Your task to perform on an android device: Open Android settings Image 0: 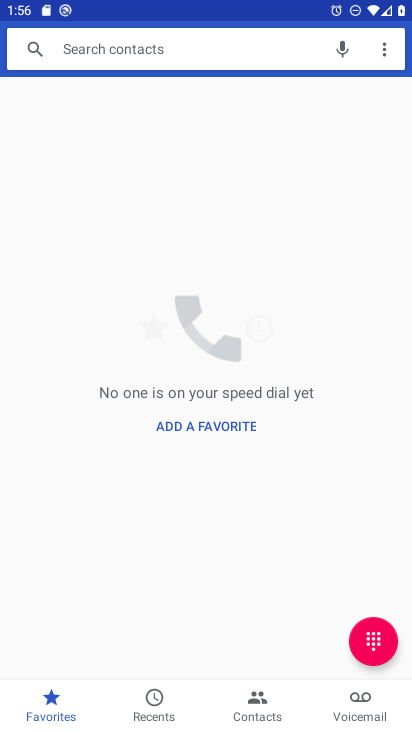
Step 0: press home button
Your task to perform on an android device: Open Android settings Image 1: 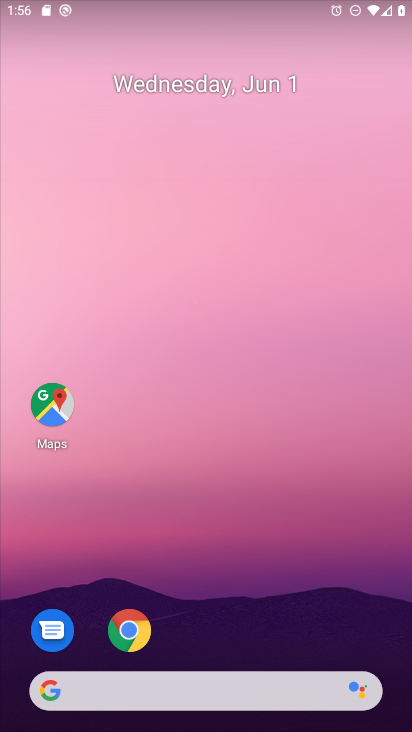
Step 1: drag from (314, 684) to (301, 15)
Your task to perform on an android device: Open Android settings Image 2: 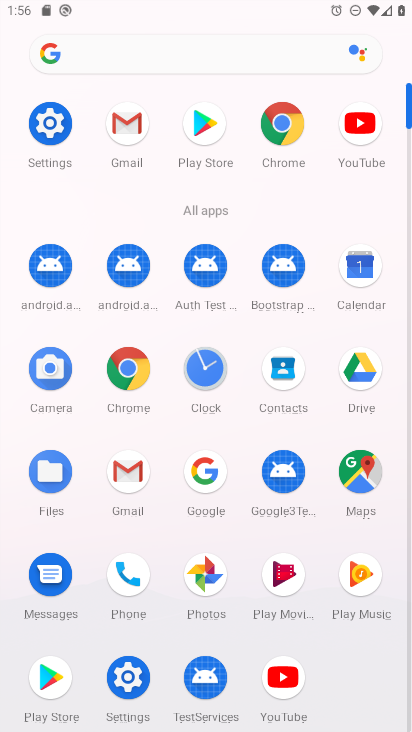
Step 2: click (44, 121)
Your task to perform on an android device: Open Android settings Image 3: 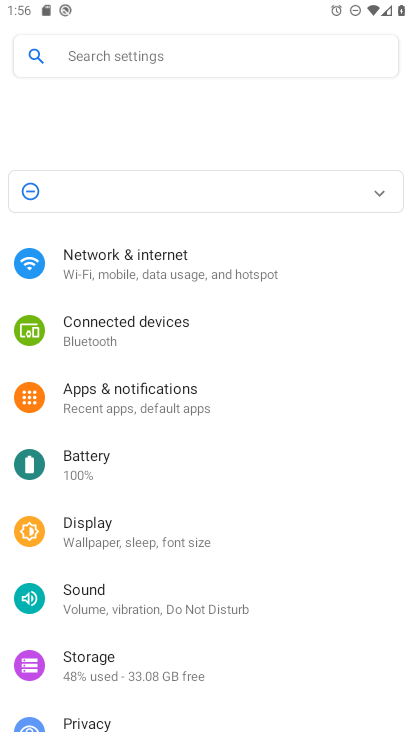
Step 3: drag from (352, 678) to (337, 102)
Your task to perform on an android device: Open Android settings Image 4: 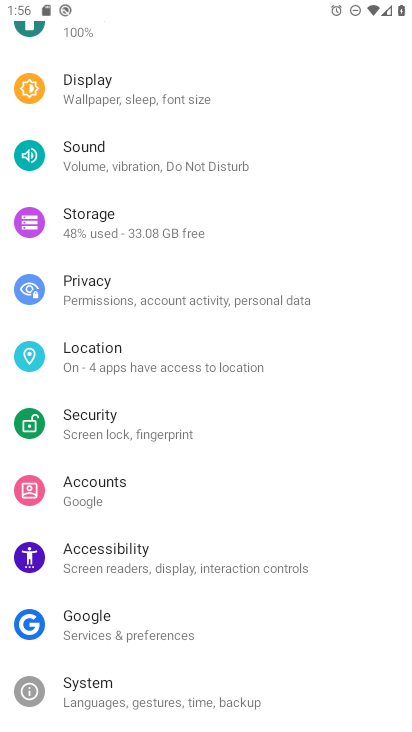
Step 4: drag from (258, 652) to (292, 140)
Your task to perform on an android device: Open Android settings Image 5: 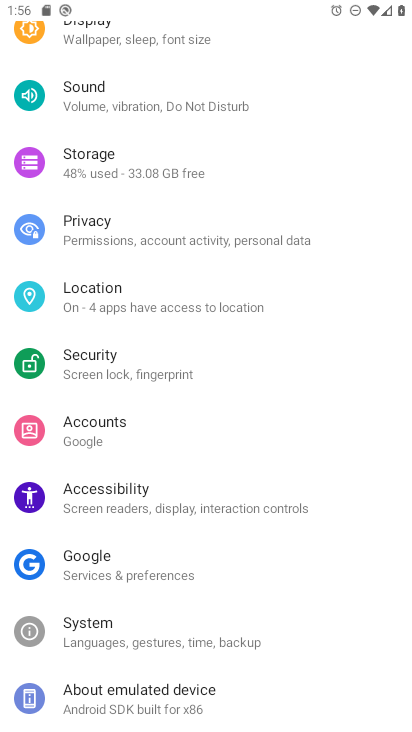
Step 5: click (225, 700)
Your task to perform on an android device: Open Android settings Image 6: 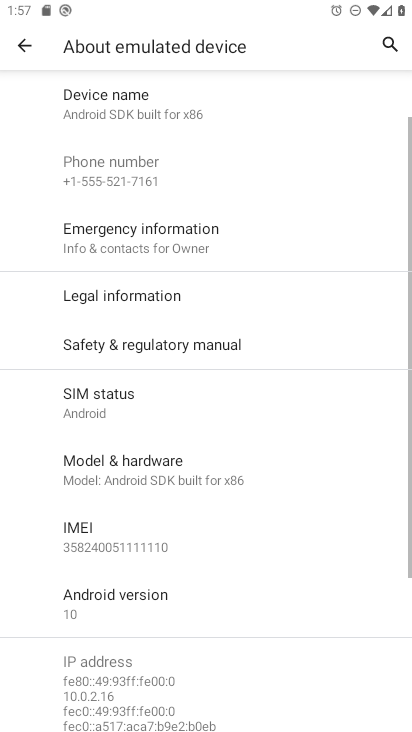
Step 6: drag from (171, 637) to (214, 410)
Your task to perform on an android device: Open Android settings Image 7: 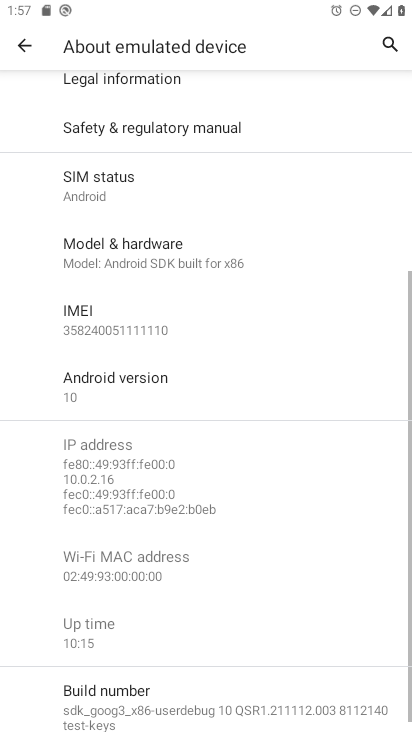
Step 7: click (189, 404)
Your task to perform on an android device: Open Android settings Image 8: 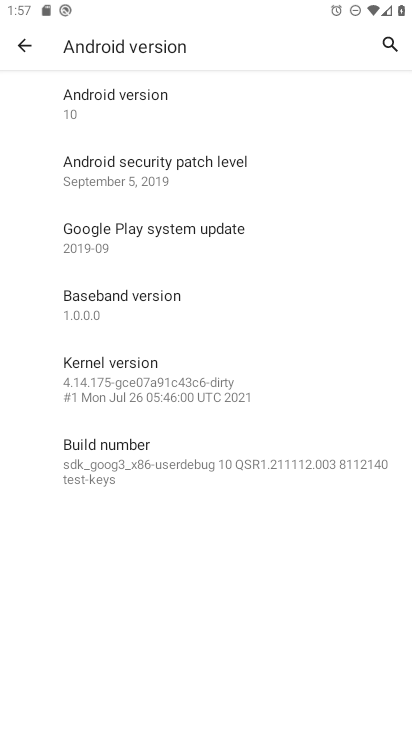
Step 8: task complete